Your task to perform on an android device: turn on translation in the chrome app Image 0: 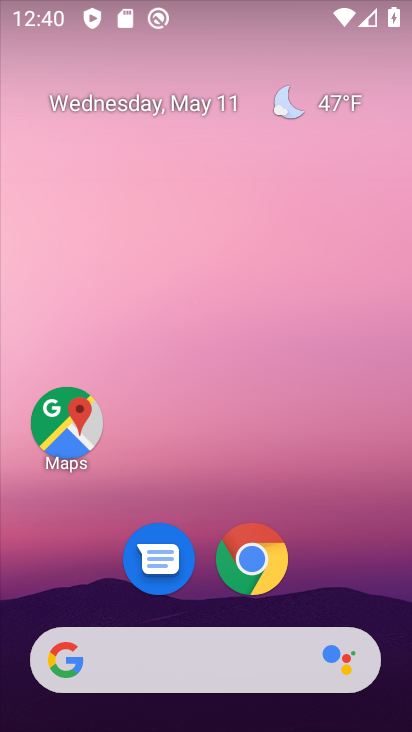
Step 0: click (259, 568)
Your task to perform on an android device: turn on translation in the chrome app Image 1: 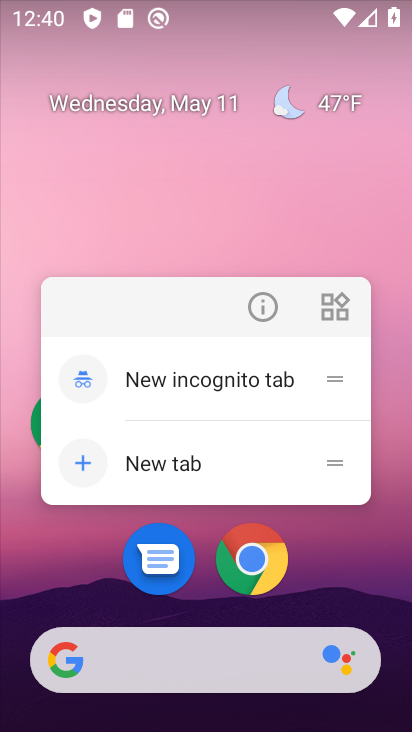
Step 1: click (262, 574)
Your task to perform on an android device: turn on translation in the chrome app Image 2: 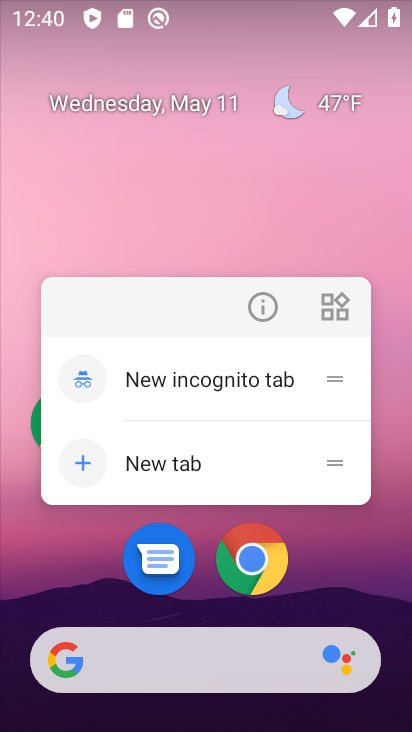
Step 2: click (281, 550)
Your task to perform on an android device: turn on translation in the chrome app Image 3: 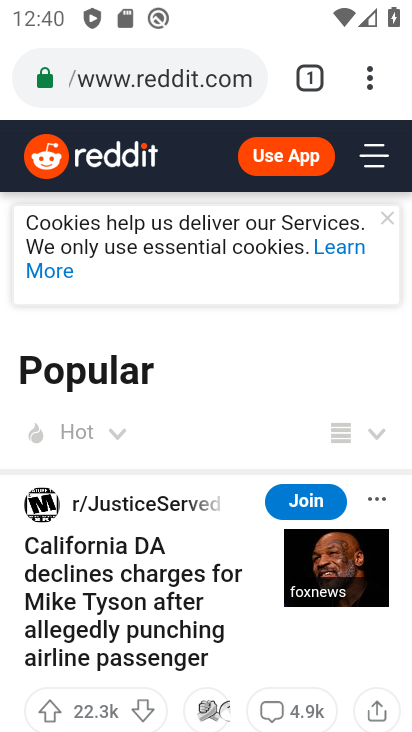
Step 3: click (366, 87)
Your task to perform on an android device: turn on translation in the chrome app Image 4: 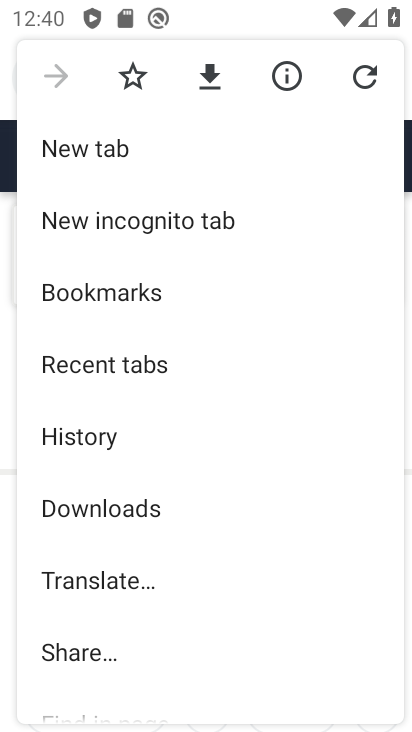
Step 4: drag from (148, 547) to (206, 2)
Your task to perform on an android device: turn on translation in the chrome app Image 5: 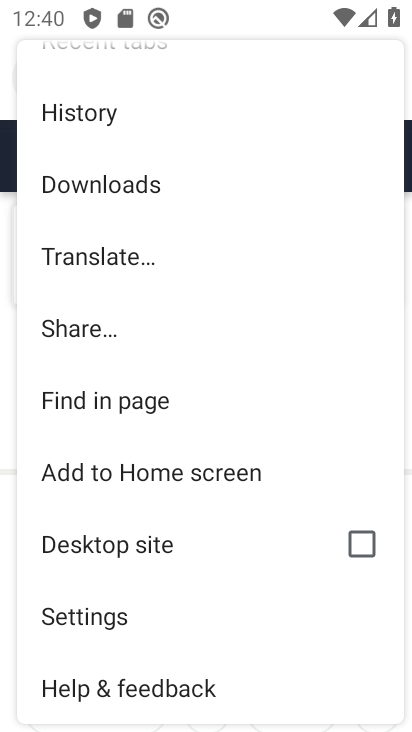
Step 5: click (106, 633)
Your task to perform on an android device: turn on translation in the chrome app Image 6: 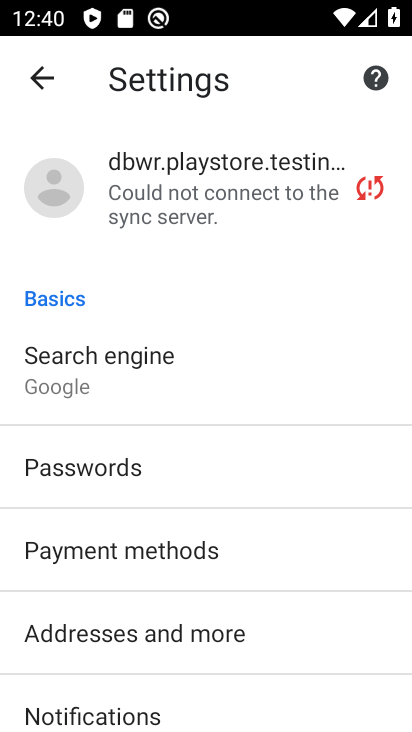
Step 6: drag from (129, 627) to (211, 136)
Your task to perform on an android device: turn on translation in the chrome app Image 7: 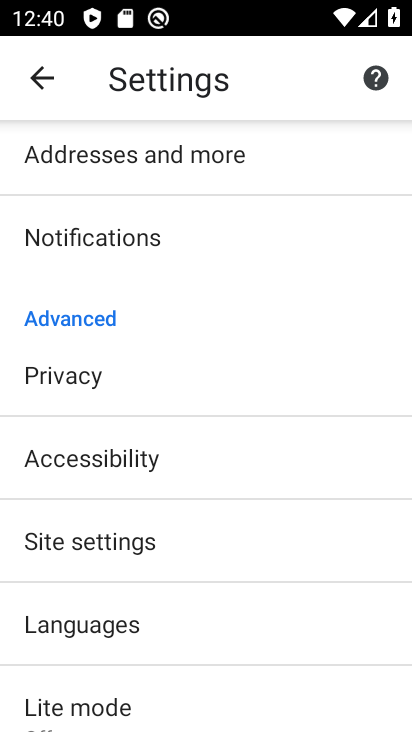
Step 7: drag from (140, 650) to (203, 305)
Your task to perform on an android device: turn on translation in the chrome app Image 8: 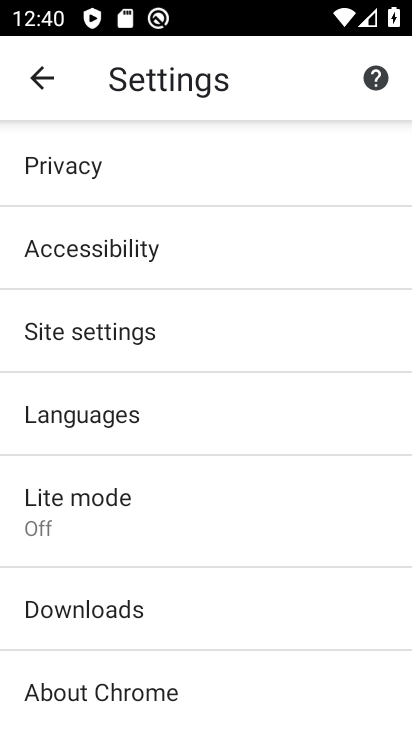
Step 8: click (145, 430)
Your task to perform on an android device: turn on translation in the chrome app Image 9: 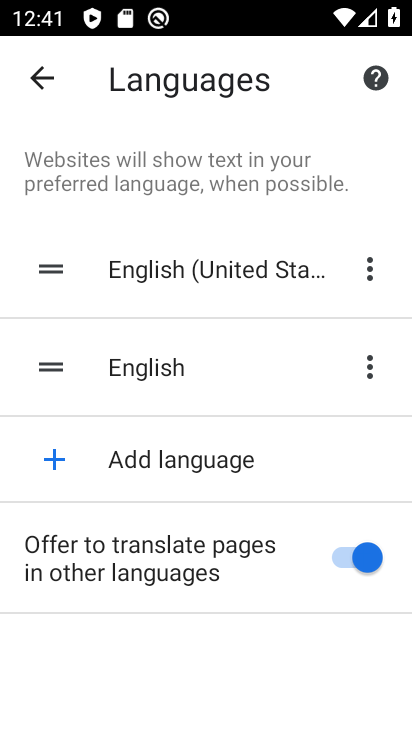
Step 9: task complete